Your task to perform on an android device: Open battery settings Image 0: 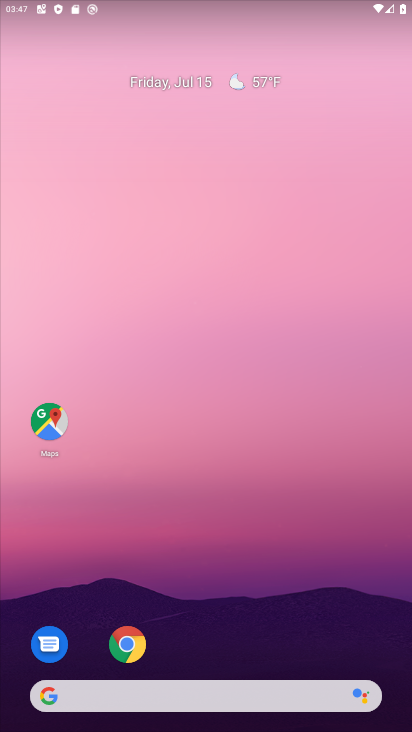
Step 0: drag from (323, 622) to (227, 196)
Your task to perform on an android device: Open battery settings Image 1: 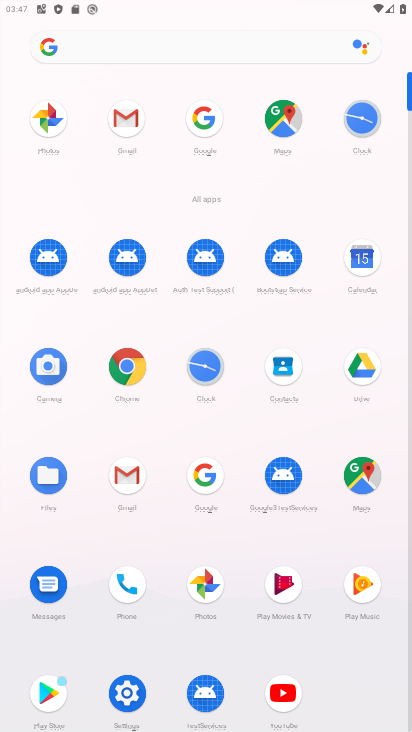
Step 1: click (137, 702)
Your task to perform on an android device: Open battery settings Image 2: 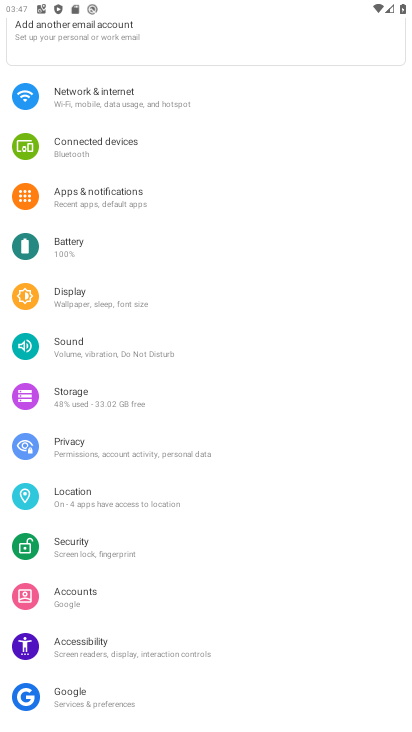
Step 2: click (115, 255)
Your task to perform on an android device: Open battery settings Image 3: 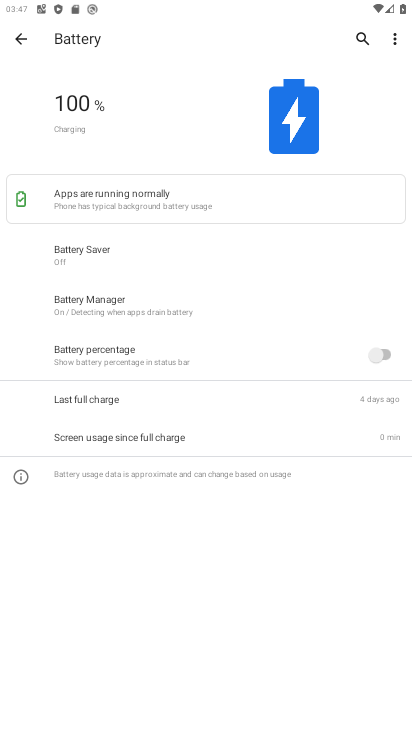
Step 3: task complete